Your task to perform on an android device: open chrome and create a bookmark for the current page Image 0: 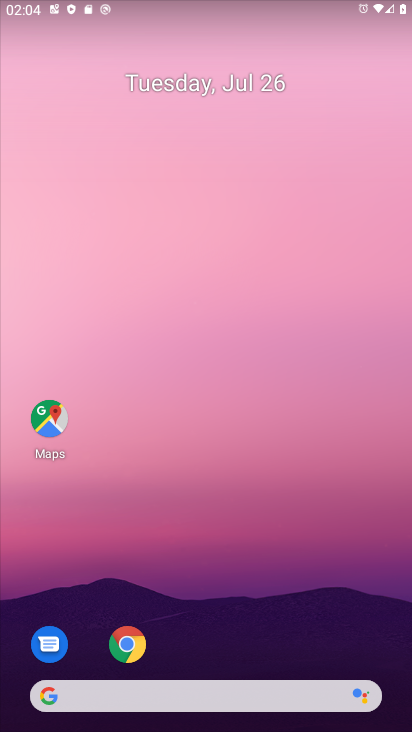
Step 0: drag from (191, 649) to (242, 170)
Your task to perform on an android device: open chrome and create a bookmark for the current page Image 1: 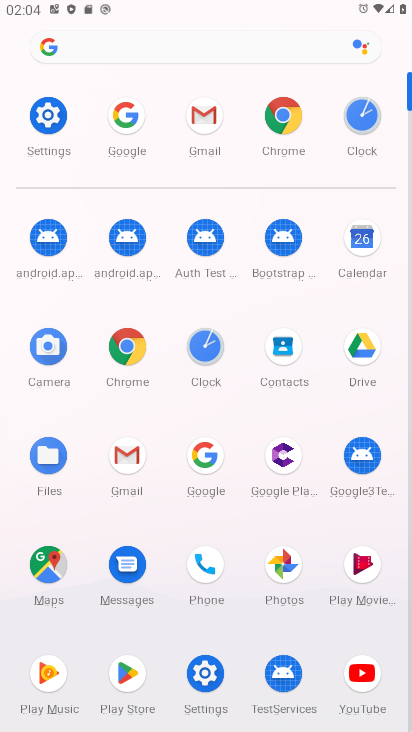
Step 1: click (287, 116)
Your task to perform on an android device: open chrome and create a bookmark for the current page Image 2: 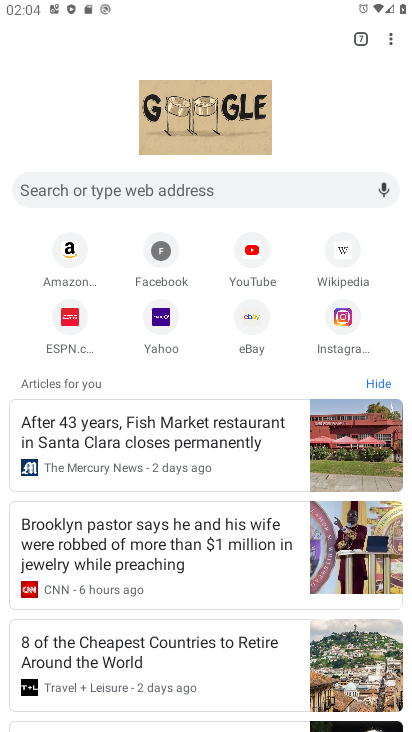
Step 2: click (398, 35)
Your task to perform on an android device: open chrome and create a bookmark for the current page Image 3: 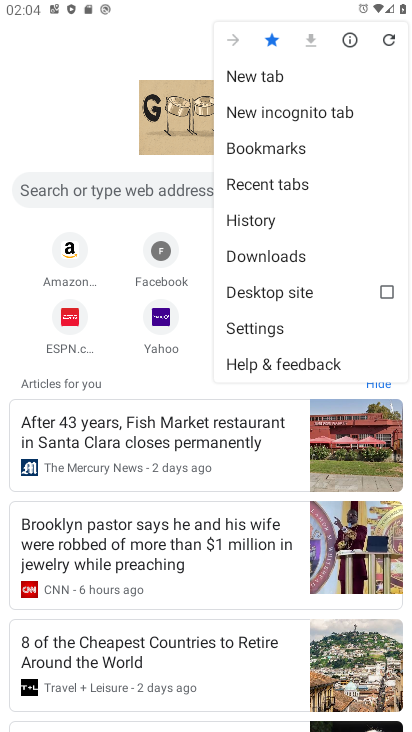
Step 3: click (56, 116)
Your task to perform on an android device: open chrome and create a bookmark for the current page Image 4: 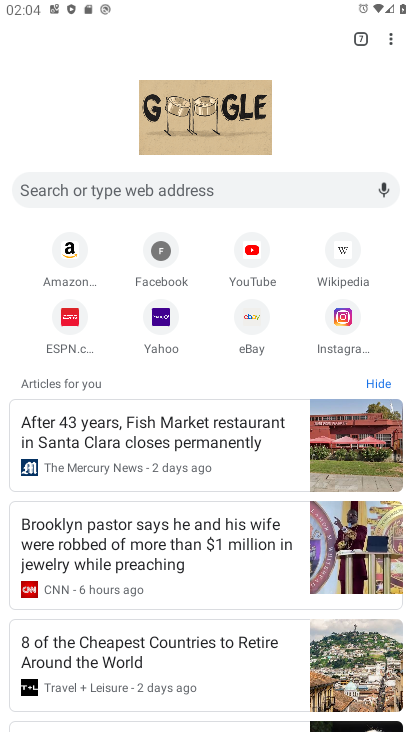
Step 4: click (407, 32)
Your task to perform on an android device: open chrome and create a bookmark for the current page Image 5: 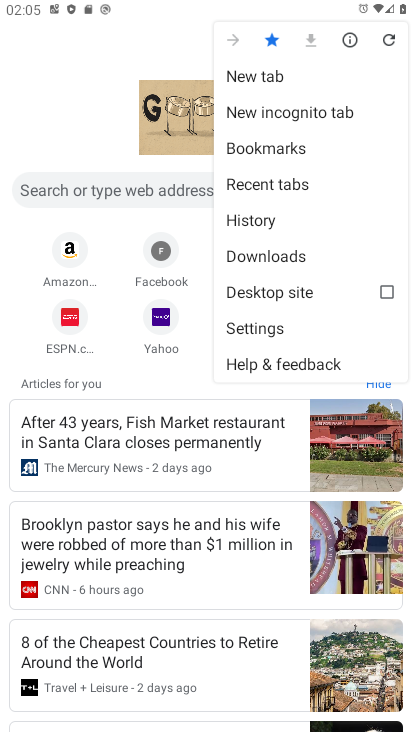
Step 5: task complete